Your task to perform on an android device: Go to Amazon Image 0: 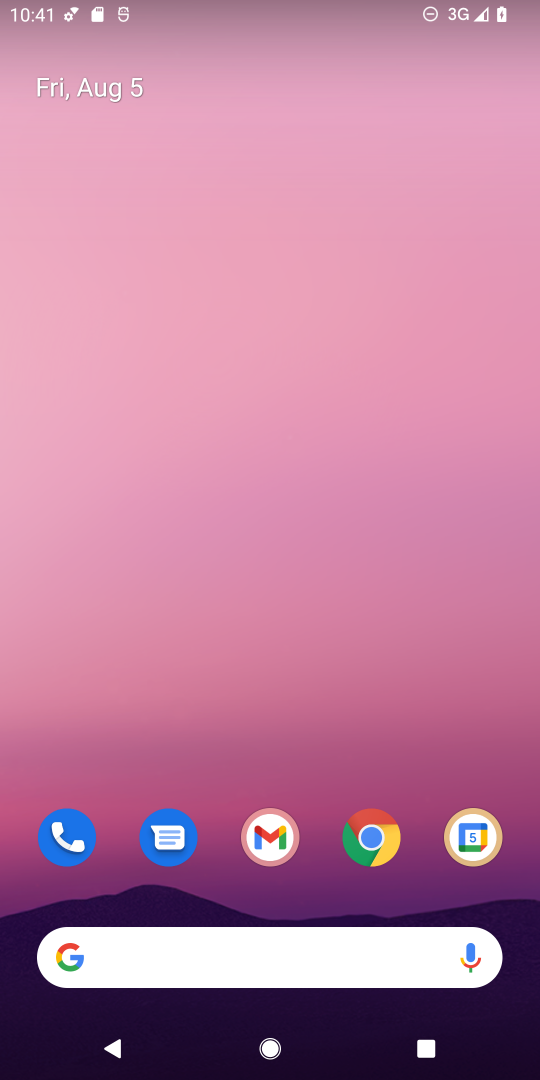
Step 0: click (368, 835)
Your task to perform on an android device: Go to Amazon Image 1: 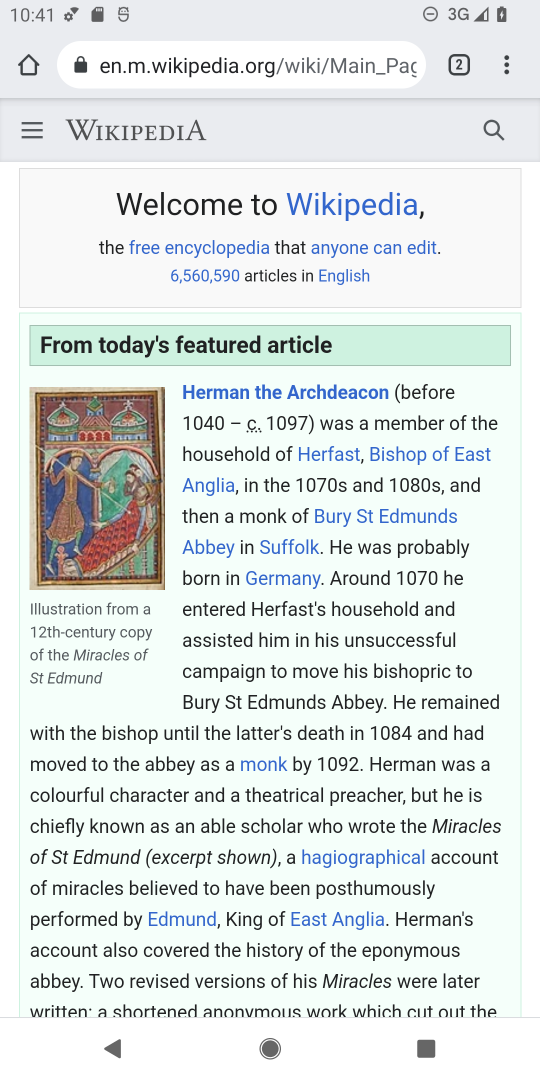
Step 1: click (507, 62)
Your task to perform on an android device: Go to Amazon Image 2: 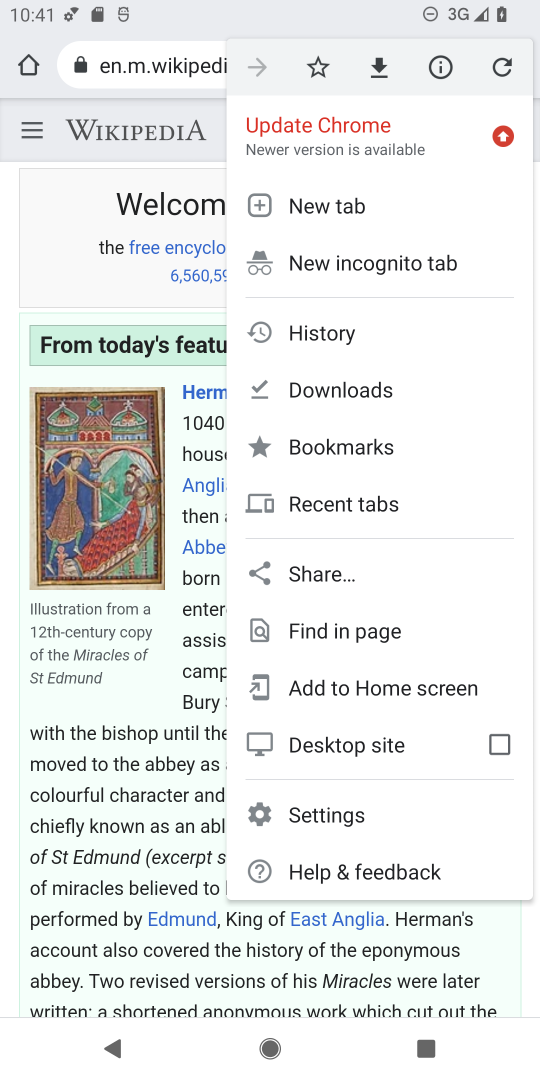
Step 2: click (351, 200)
Your task to perform on an android device: Go to Amazon Image 3: 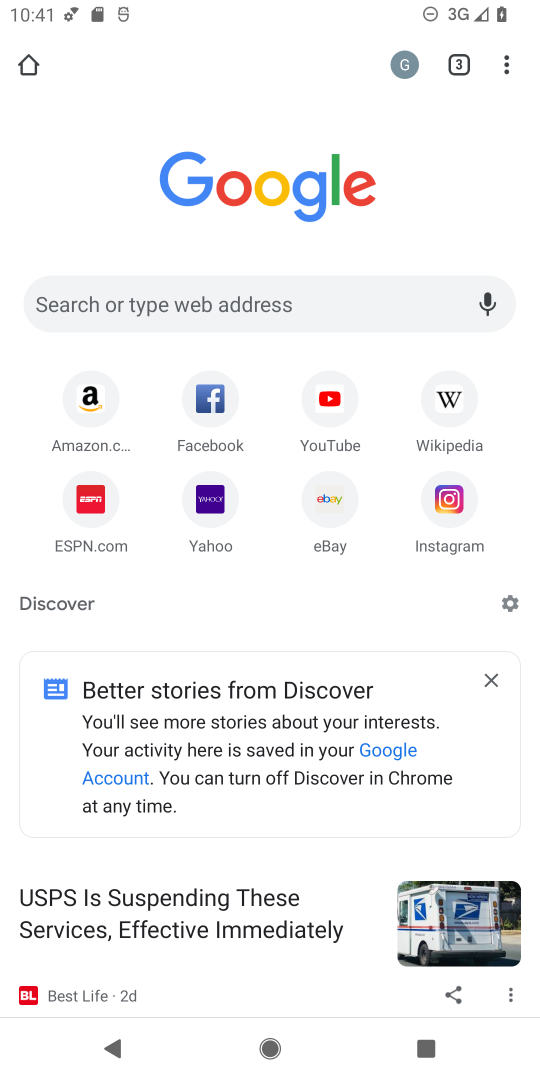
Step 3: click (88, 394)
Your task to perform on an android device: Go to Amazon Image 4: 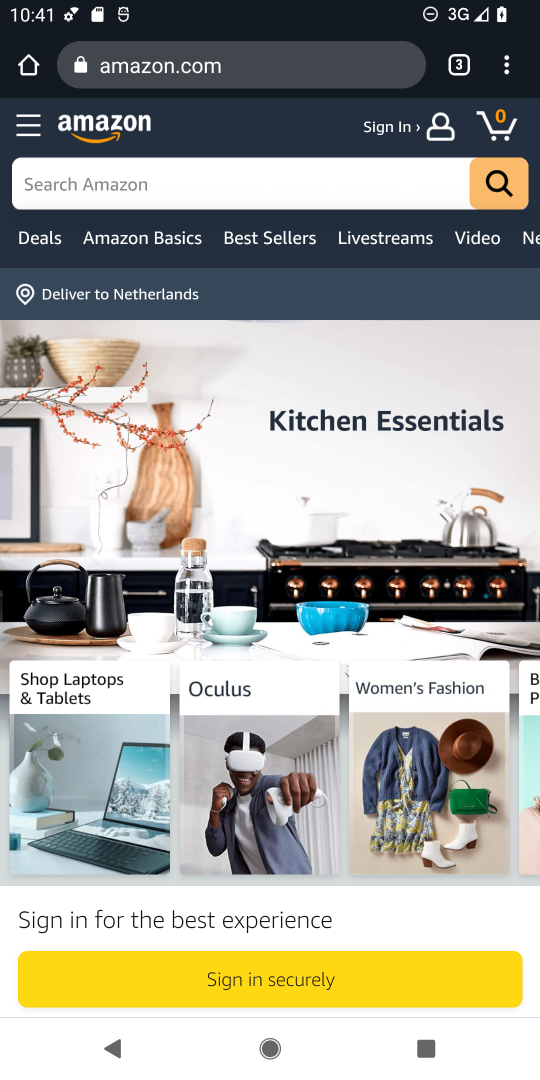
Step 4: task complete